Your task to perform on an android device: toggle data saver in the chrome app Image 0: 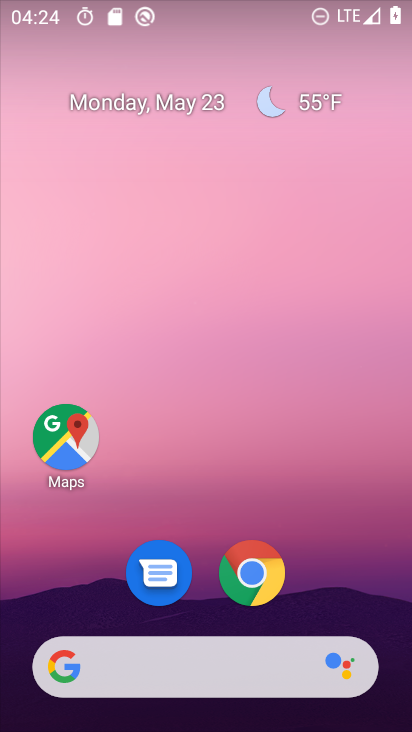
Step 0: click (248, 576)
Your task to perform on an android device: toggle data saver in the chrome app Image 1: 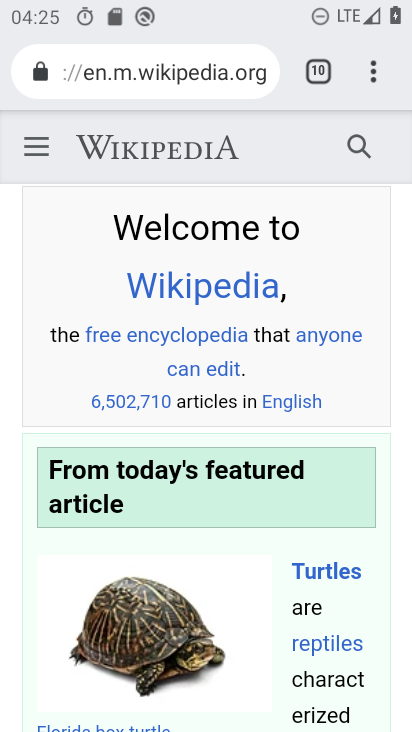
Step 1: click (377, 71)
Your task to perform on an android device: toggle data saver in the chrome app Image 2: 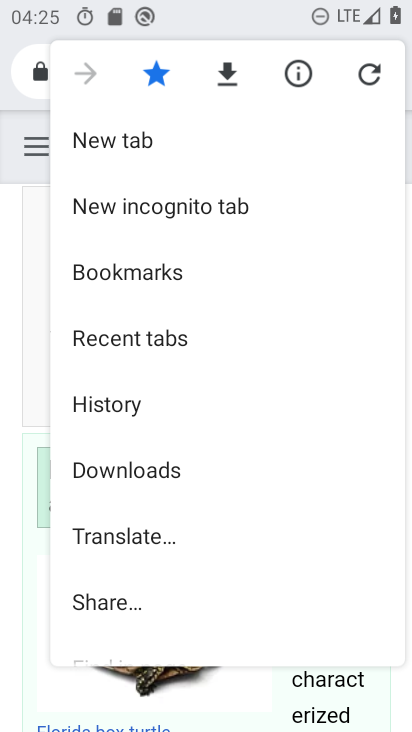
Step 2: drag from (220, 539) to (224, 183)
Your task to perform on an android device: toggle data saver in the chrome app Image 3: 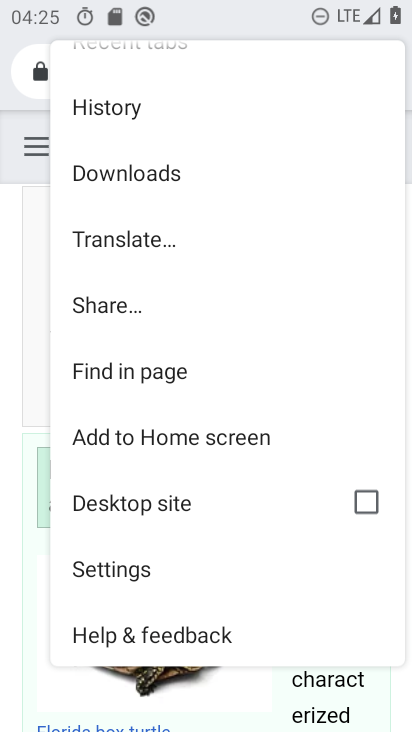
Step 3: click (126, 570)
Your task to perform on an android device: toggle data saver in the chrome app Image 4: 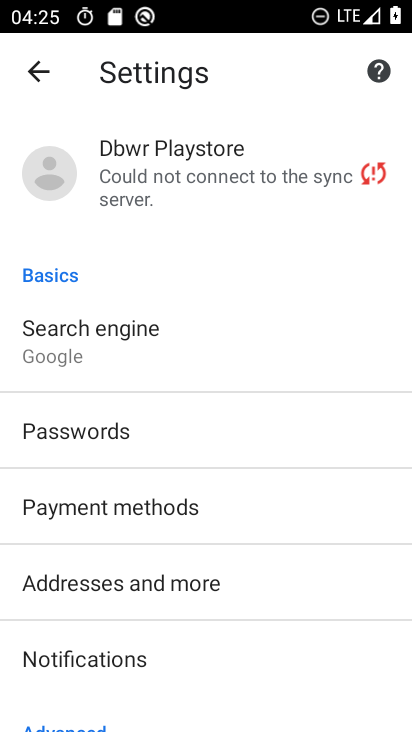
Step 4: drag from (198, 605) to (247, 189)
Your task to perform on an android device: toggle data saver in the chrome app Image 5: 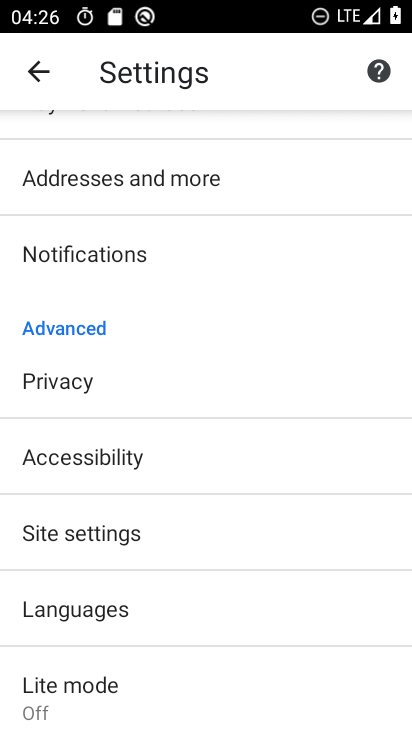
Step 5: drag from (248, 621) to (233, 348)
Your task to perform on an android device: toggle data saver in the chrome app Image 6: 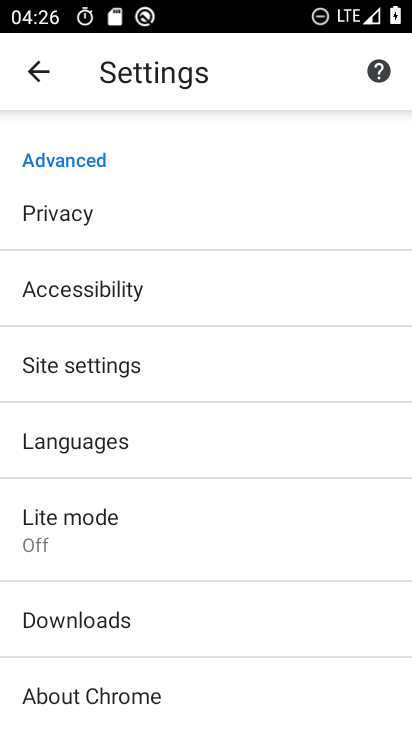
Step 6: click (104, 525)
Your task to perform on an android device: toggle data saver in the chrome app Image 7: 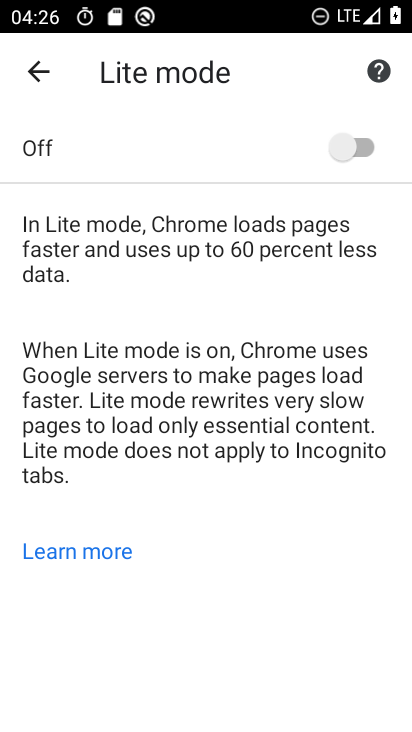
Step 7: click (358, 153)
Your task to perform on an android device: toggle data saver in the chrome app Image 8: 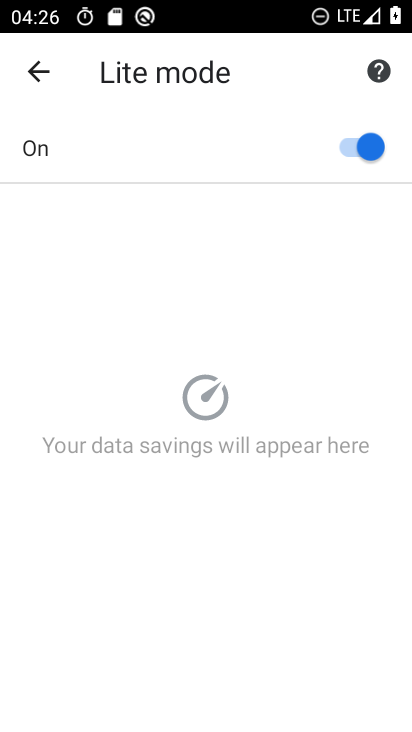
Step 8: task complete